Your task to perform on an android device: Open location settings Image 0: 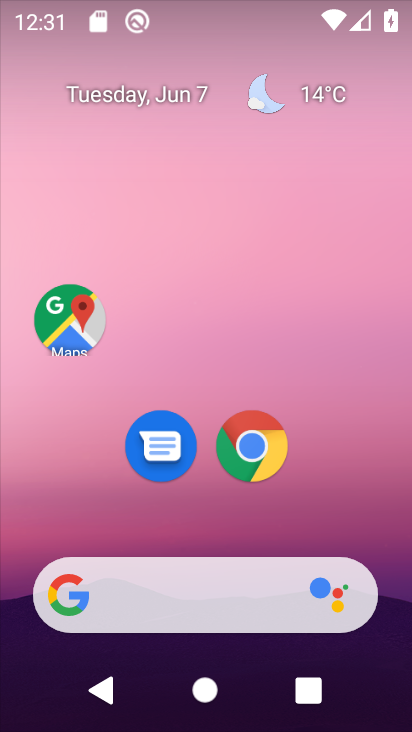
Step 0: drag from (183, 545) to (213, 62)
Your task to perform on an android device: Open location settings Image 1: 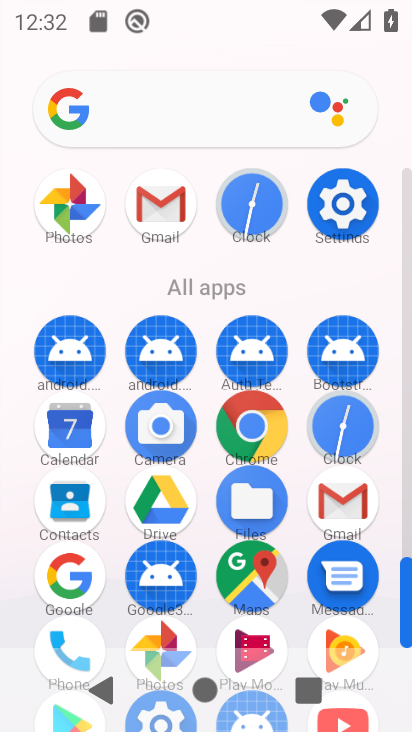
Step 1: click (329, 191)
Your task to perform on an android device: Open location settings Image 2: 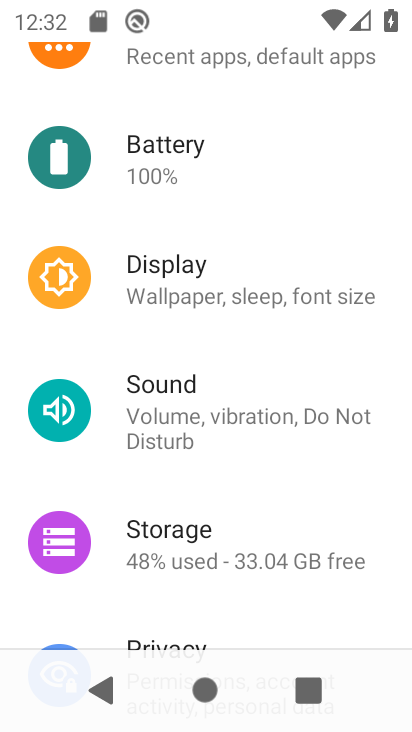
Step 2: drag from (206, 600) to (265, 258)
Your task to perform on an android device: Open location settings Image 3: 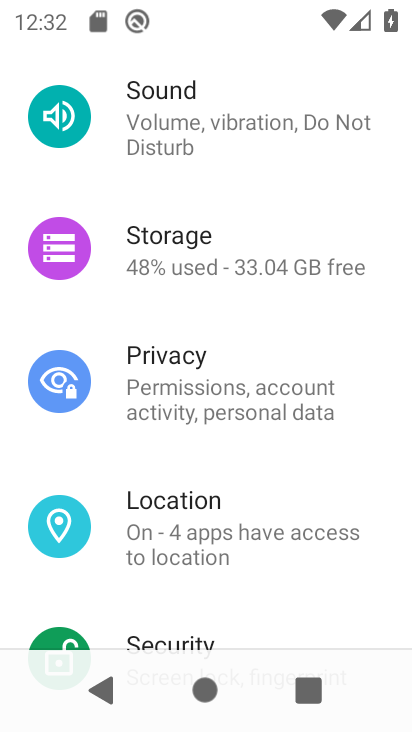
Step 3: click (189, 523)
Your task to perform on an android device: Open location settings Image 4: 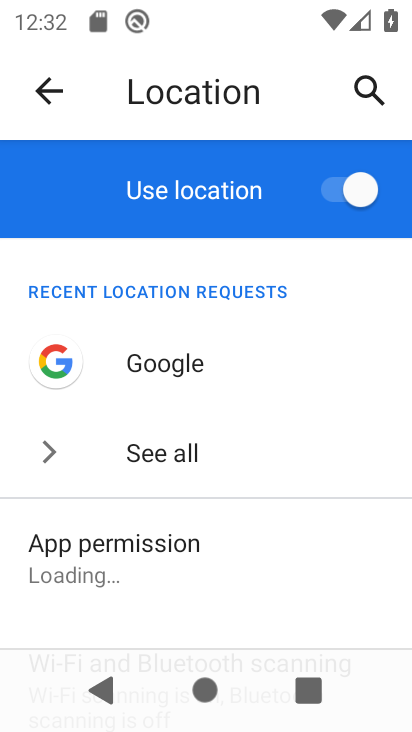
Step 4: task complete